Your task to perform on an android device: set the timer Image 0: 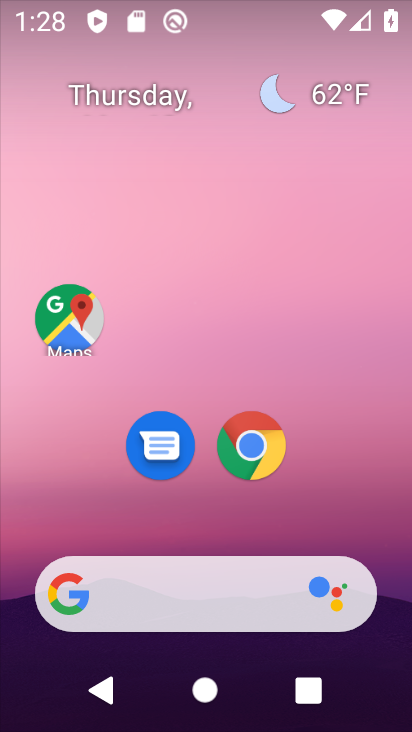
Step 0: drag from (310, 525) to (234, 0)
Your task to perform on an android device: set the timer Image 1: 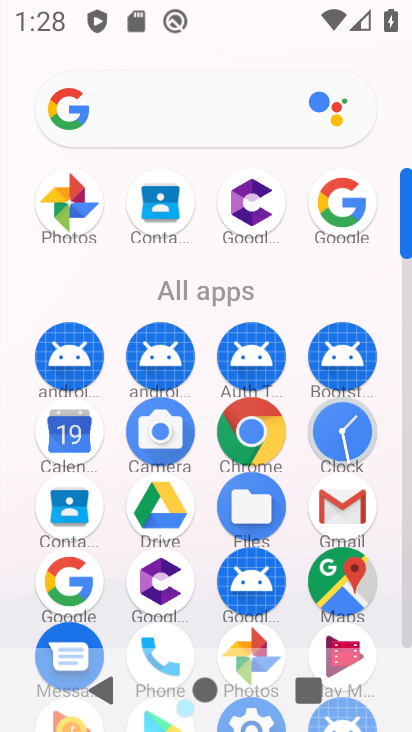
Step 1: click (335, 436)
Your task to perform on an android device: set the timer Image 2: 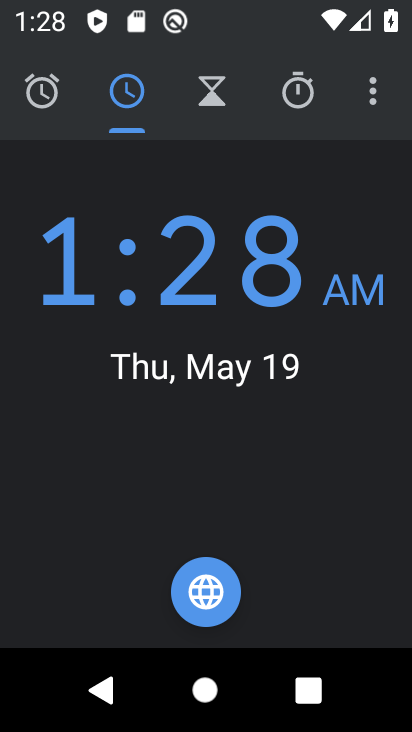
Step 2: click (368, 92)
Your task to perform on an android device: set the timer Image 3: 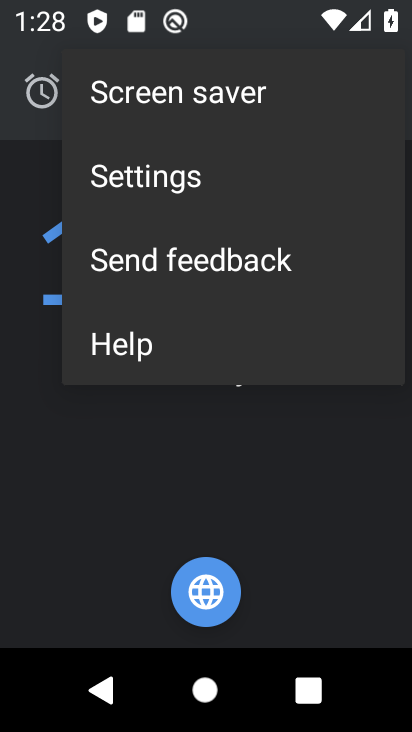
Step 3: click (134, 470)
Your task to perform on an android device: set the timer Image 4: 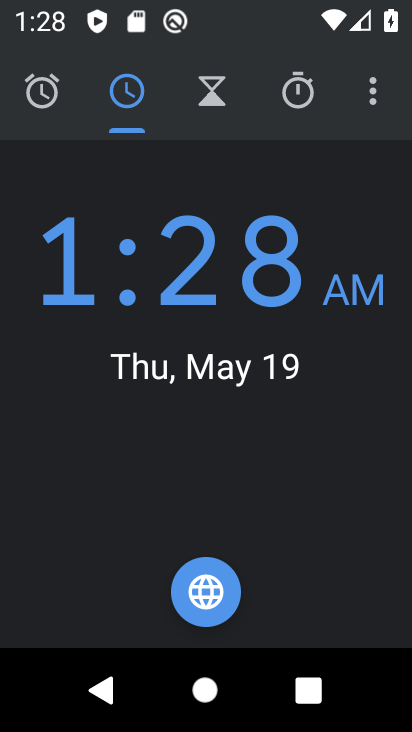
Step 4: click (228, 88)
Your task to perform on an android device: set the timer Image 5: 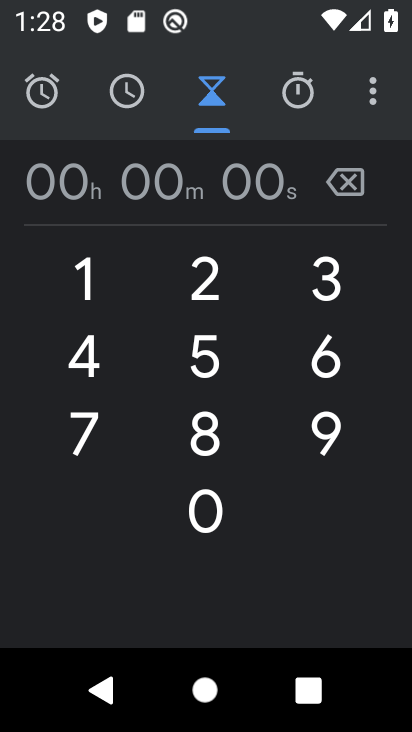
Step 5: click (104, 312)
Your task to perform on an android device: set the timer Image 6: 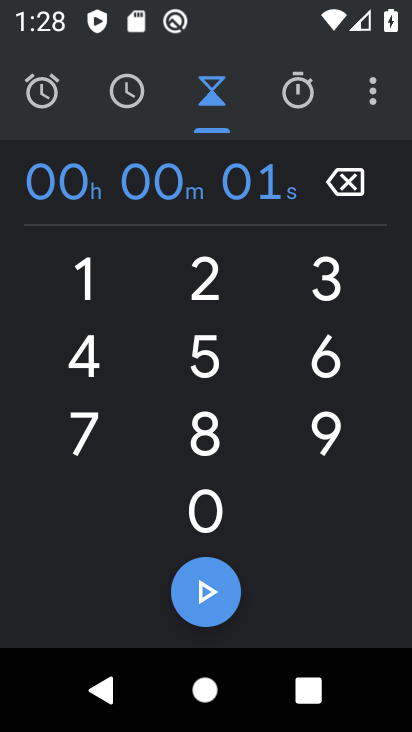
Step 6: click (88, 289)
Your task to perform on an android device: set the timer Image 7: 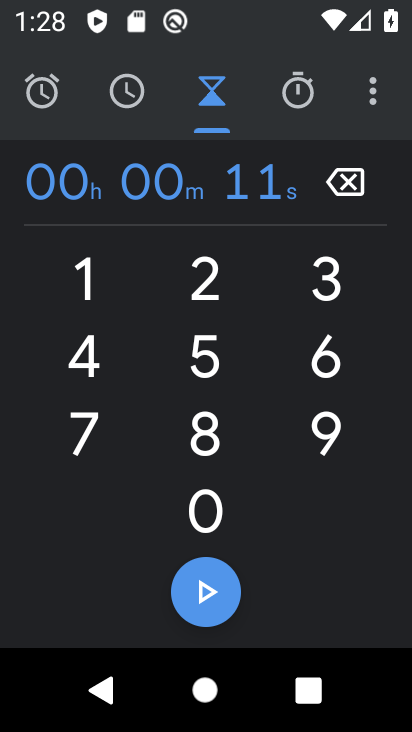
Step 7: click (94, 290)
Your task to perform on an android device: set the timer Image 8: 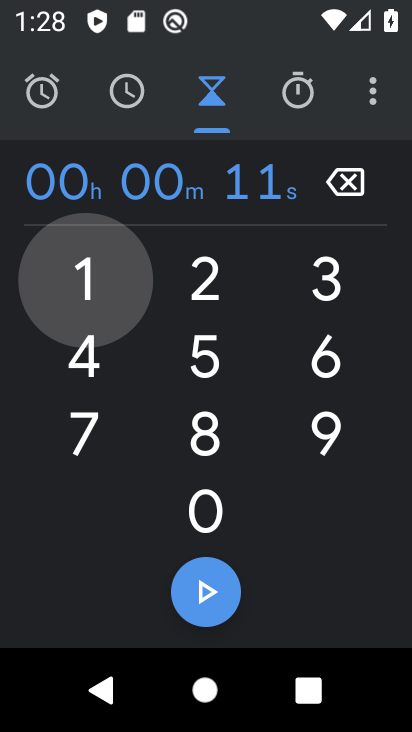
Step 8: click (94, 290)
Your task to perform on an android device: set the timer Image 9: 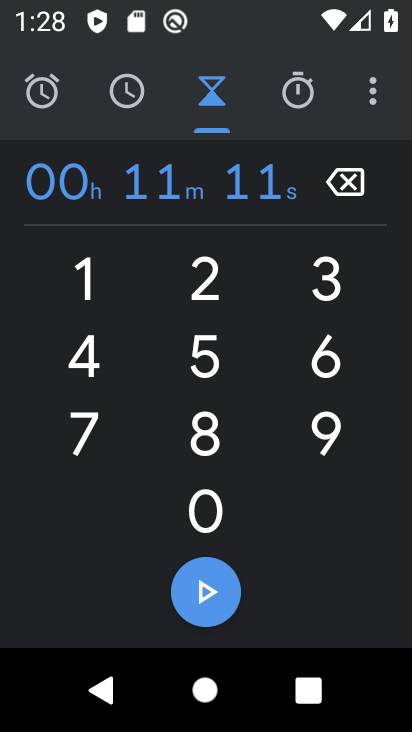
Step 9: click (75, 285)
Your task to perform on an android device: set the timer Image 10: 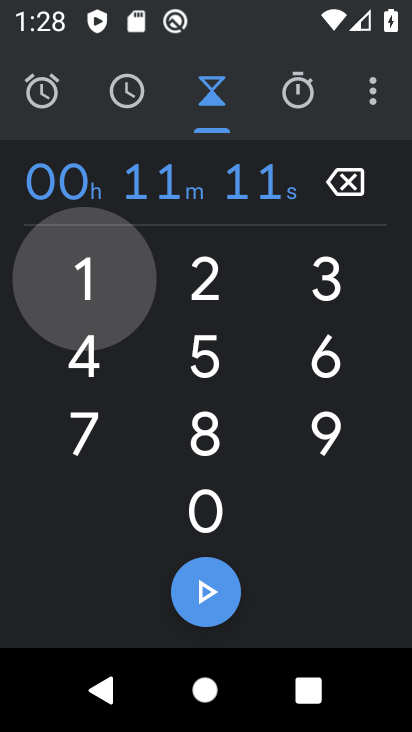
Step 10: click (76, 284)
Your task to perform on an android device: set the timer Image 11: 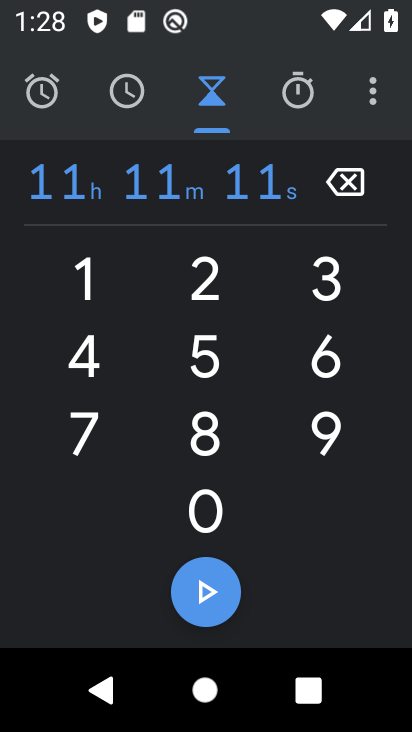
Step 11: click (203, 606)
Your task to perform on an android device: set the timer Image 12: 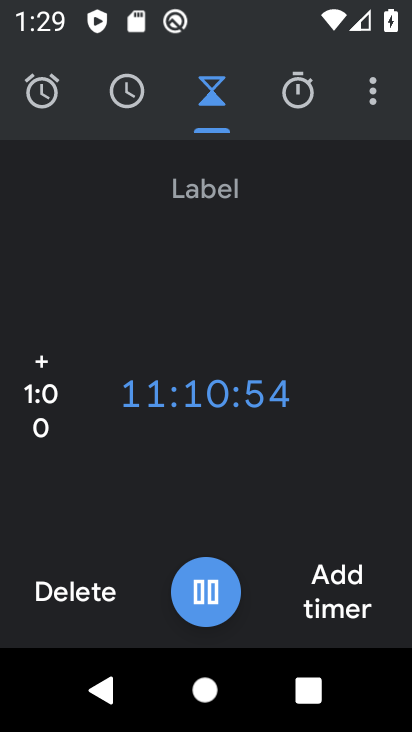
Step 12: task complete